Your task to perform on an android device: Open Google Chrome Image 0: 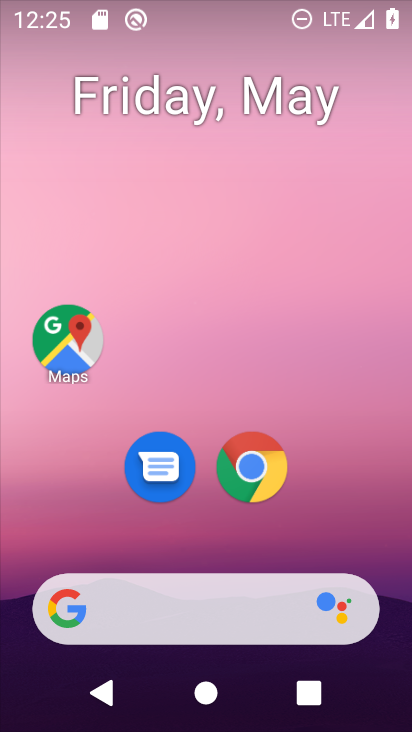
Step 0: drag from (251, 620) to (231, 107)
Your task to perform on an android device: Open Google Chrome Image 1: 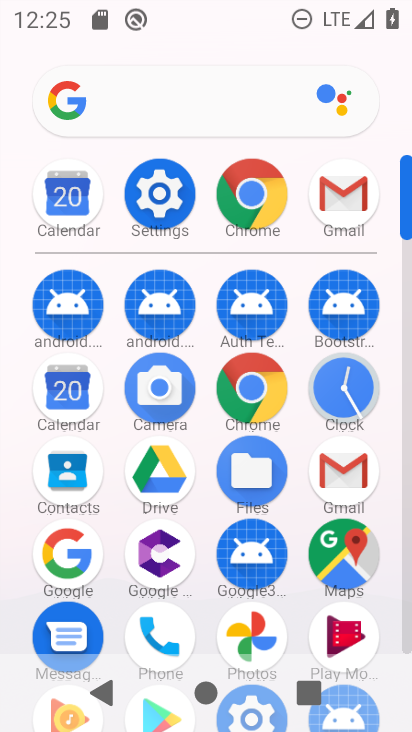
Step 1: click (256, 396)
Your task to perform on an android device: Open Google Chrome Image 2: 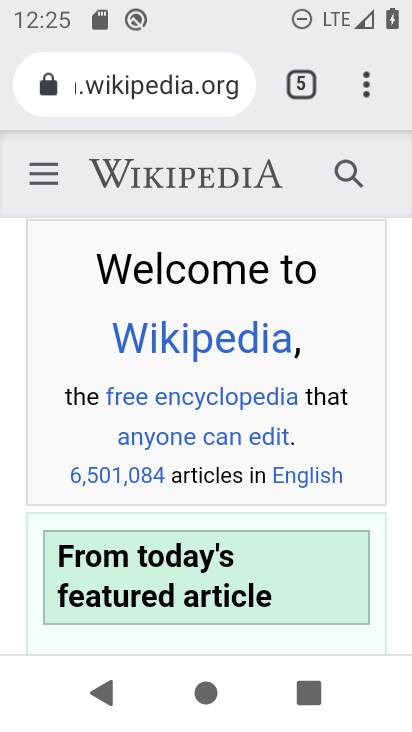
Step 2: task complete